Your task to perform on an android device: turn on airplane mode Image 0: 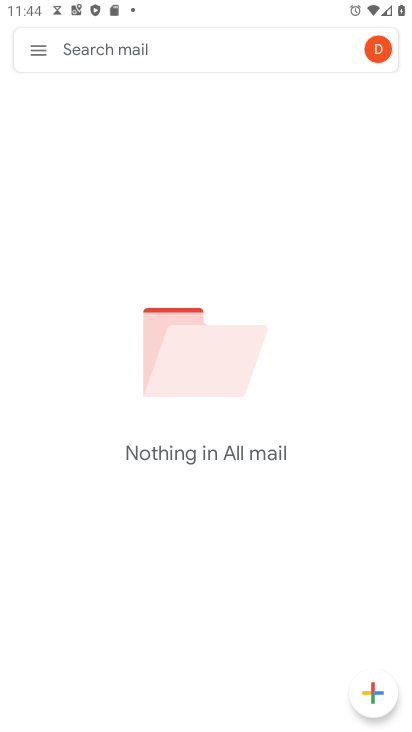
Step 0: press home button
Your task to perform on an android device: turn on airplane mode Image 1: 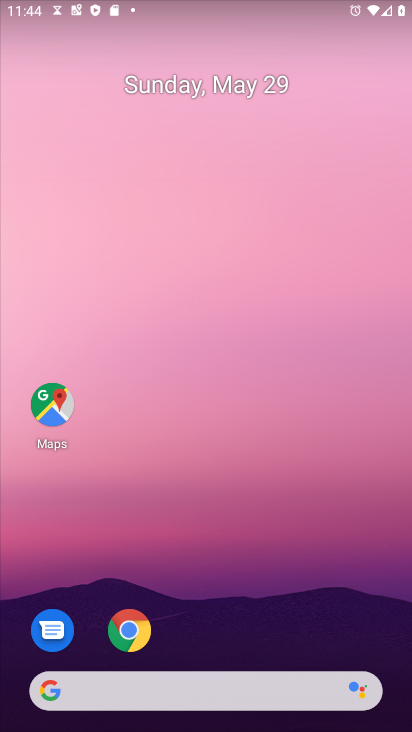
Step 1: drag from (242, 3) to (205, 610)
Your task to perform on an android device: turn on airplane mode Image 2: 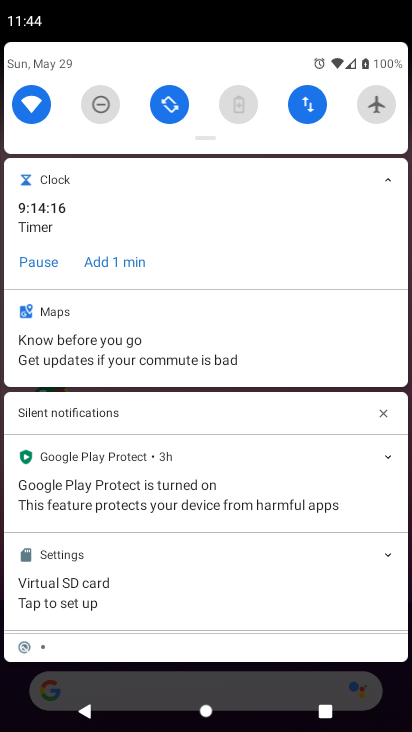
Step 2: drag from (207, 66) to (234, 605)
Your task to perform on an android device: turn on airplane mode Image 3: 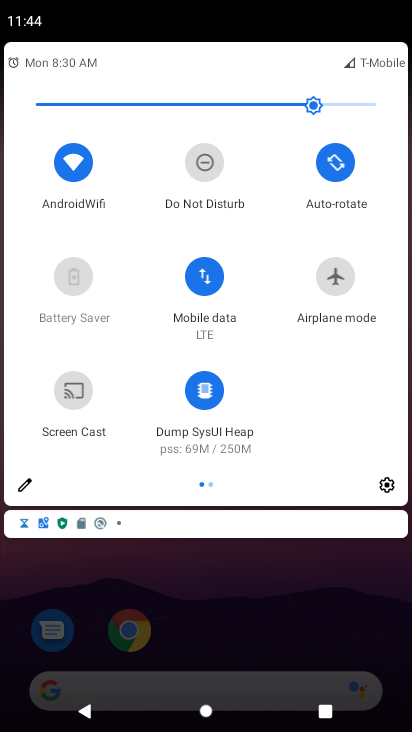
Step 3: click (341, 269)
Your task to perform on an android device: turn on airplane mode Image 4: 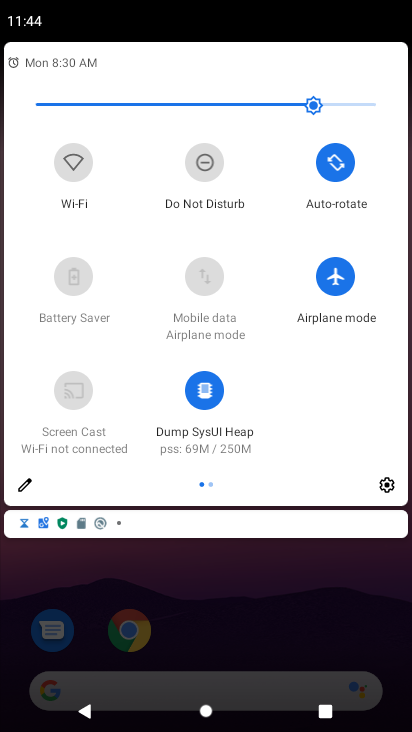
Step 4: task complete